Your task to perform on an android device: Open Yahoo.com Image 0: 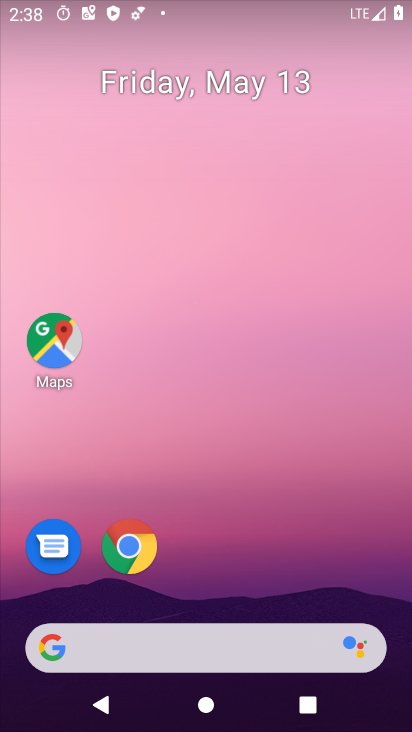
Step 0: drag from (205, 595) to (233, 59)
Your task to perform on an android device: Open Yahoo.com Image 1: 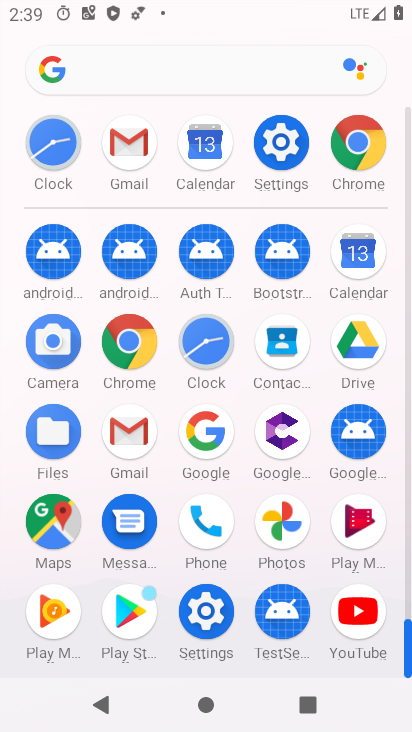
Step 1: click (371, 173)
Your task to perform on an android device: Open Yahoo.com Image 2: 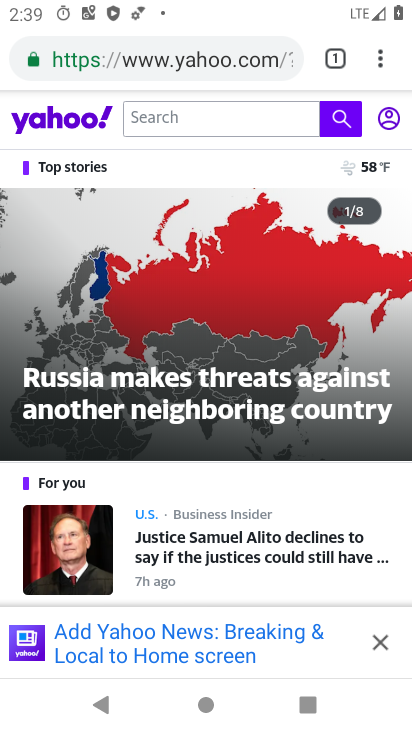
Step 2: task complete